Your task to perform on an android device: Find coffee shops on Maps Image 0: 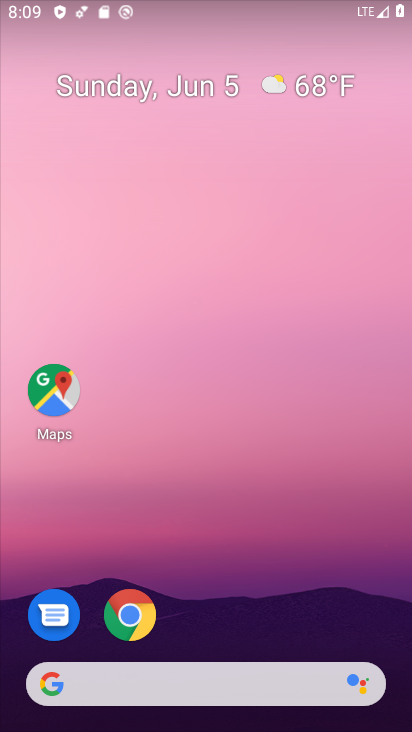
Step 0: click (37, 386)
Your task to perform on an android device: Find coffee shops on Maps Image 1: 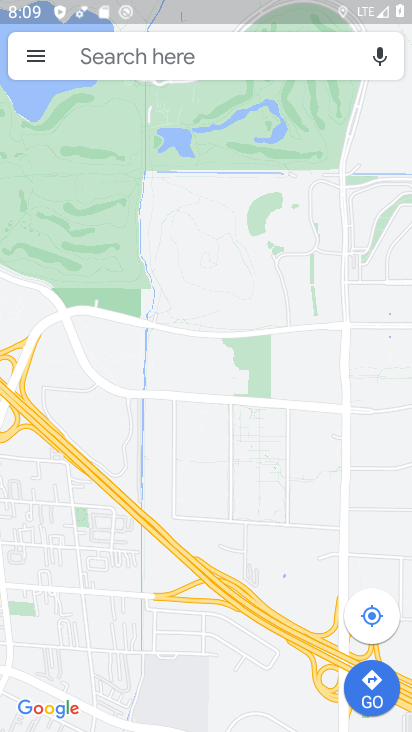
Step 1: click (158, 58)
Your task to perform on an android device: Find coffee shops on Maps Image 2: 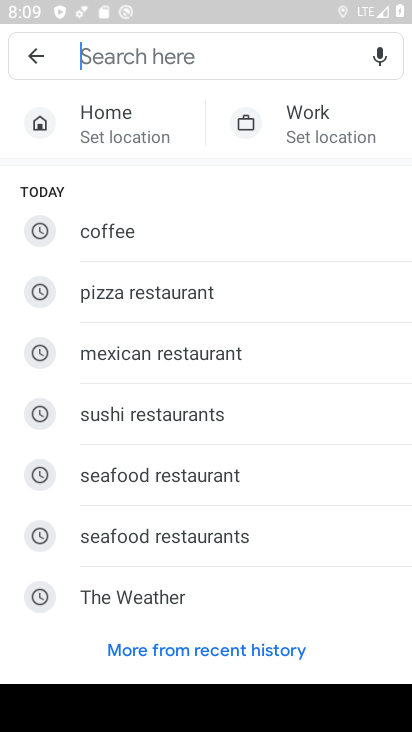
Step 2: click (123, 233)
Your task to perform on an android device: Find coffee shops on Maps Image 3: 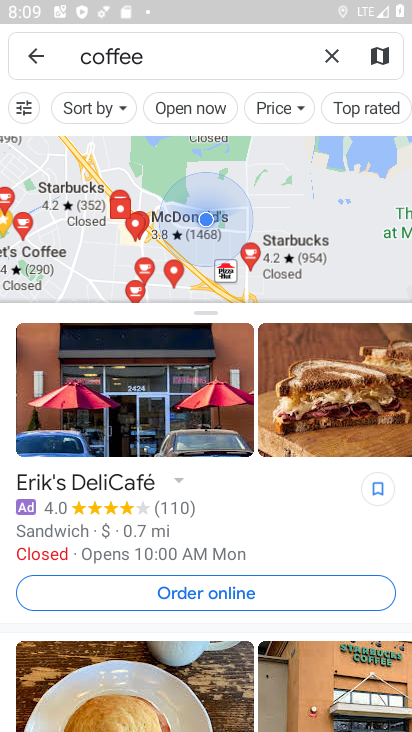
Step 3: task complete